Your task to perform on an android device: Show me popular videos on Youtube Image 0: 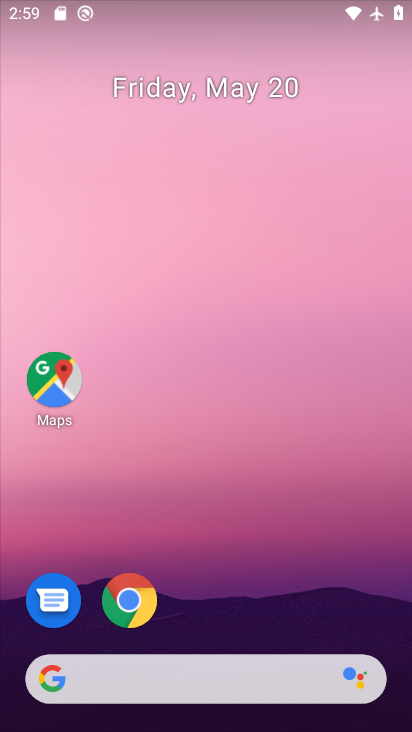
Step 0: drag from (249, 396) to (199, 36)
Your task to perform on an android device: Show me popular videos on Youtube Image 1: 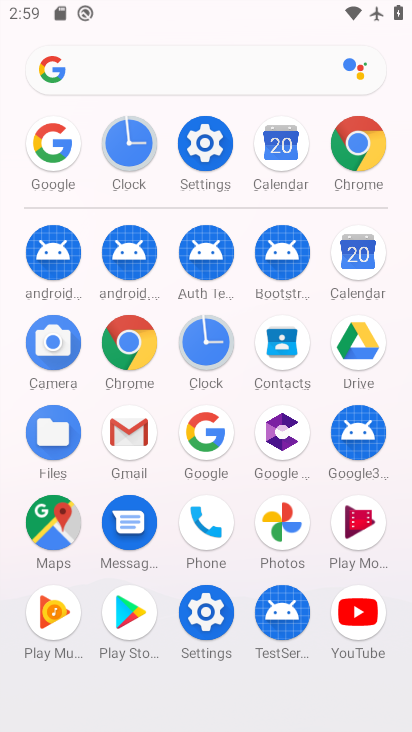
Step 1: click (364, 615)
Your task to perform on an android device: Show me popular videos on Youtube Image 2: 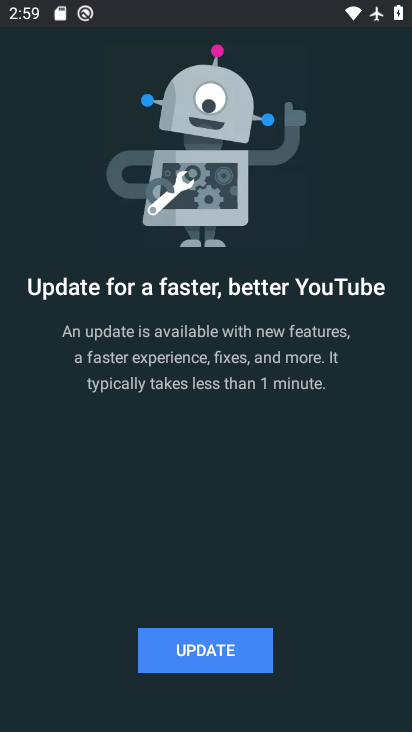
Step 2: click (226, 660)
Your task to perform on an android device: Show me popular videos on Youtube Image 3: 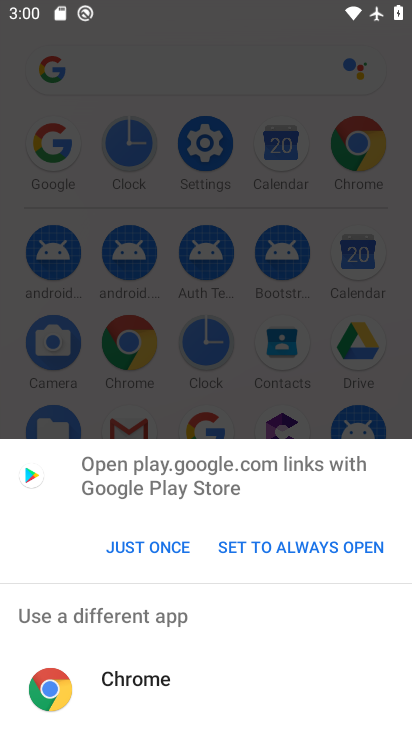
Step 3: click (156, 547)
Your task to perform on an android device: Show me popular videos on Youtube Image 4: 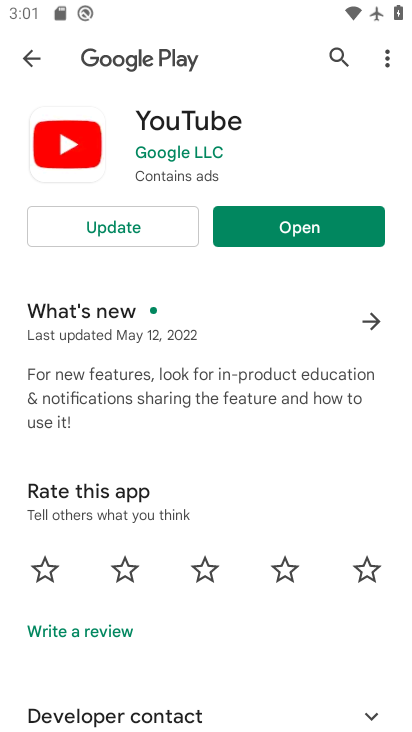
Step 4: click (138, 233)
Your task to perform on an android device: Show me popular videos on Youtube Image 5: 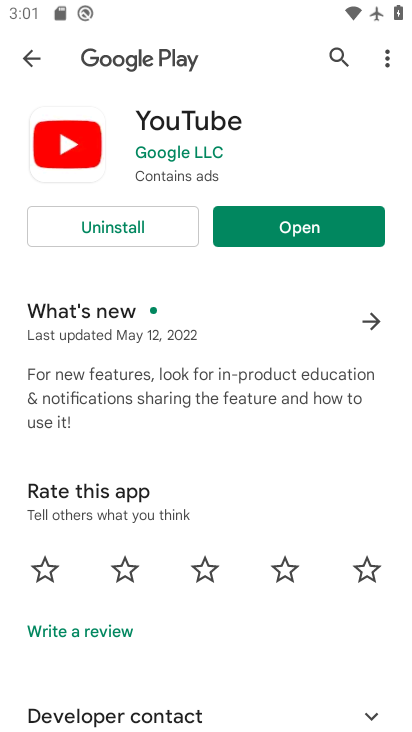
Step 5: click (305, 227)
Your task to perform on an android device: Show me popular videos on Youtube Image 6: 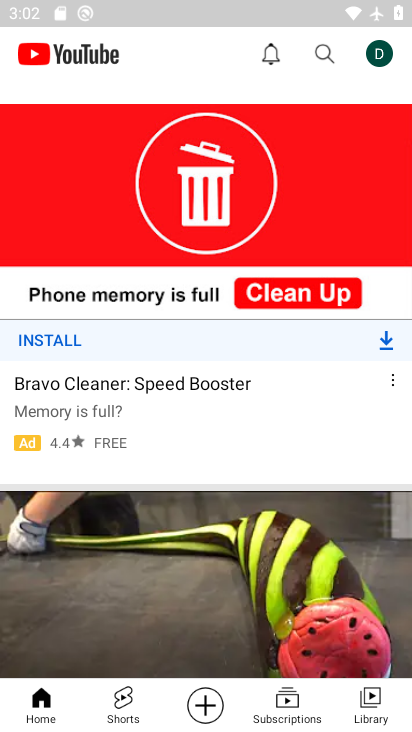
Step 6: drag from (92, 144) to (79, 582)
Your task to perform on an android device: Show me popular videos on Youtube Image 7: 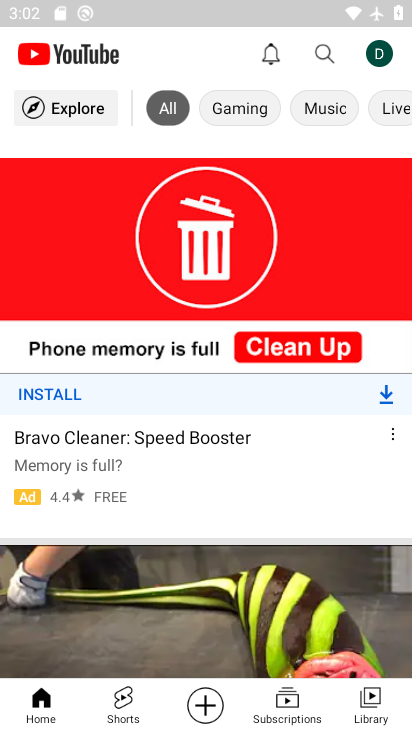
Step 7: click (63, 111)
Your task to perform on an android device: Show me popular videos on Youtube Image 8: 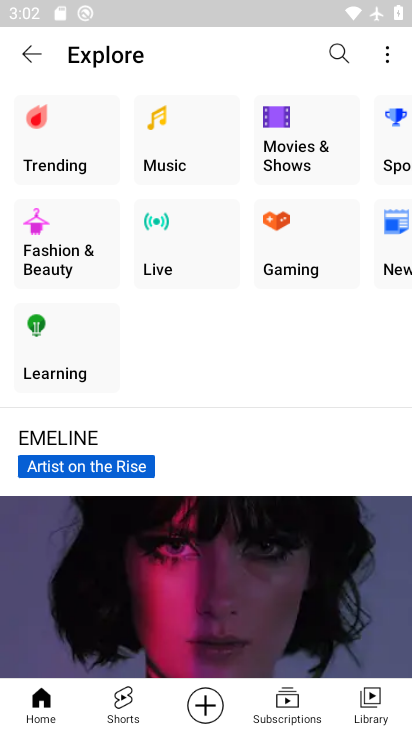
Step 8: click (49, 156)
Your task to perform on an android device: Show me popular videos on Youtube Image 9: 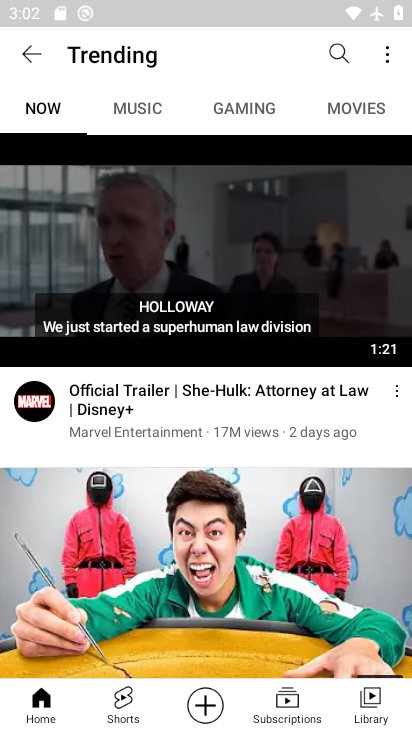
Step 9: task complete